Your task to perform on an android device: Search for sushi restaurants on Maps Image 0: 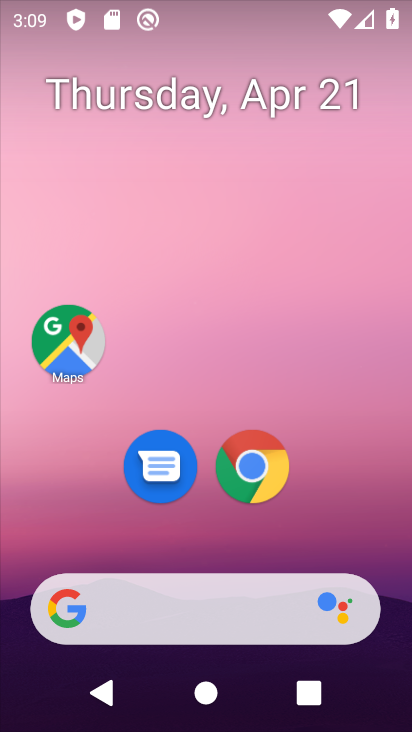
Step 0: click (67, 353)
Your task to perform on an android device: Search for sushi restaurants on Maps Image 1: 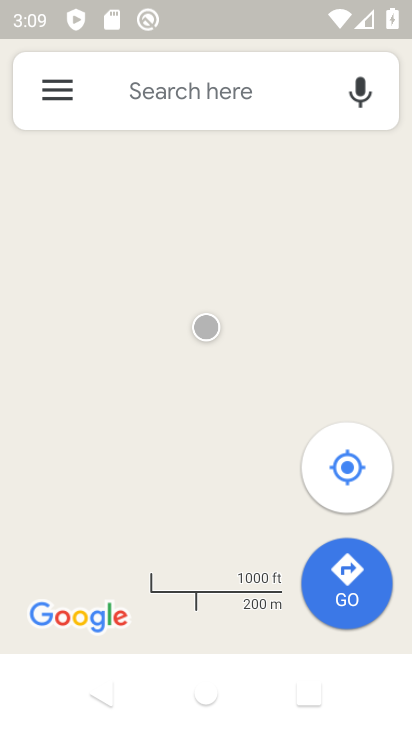
Step 1: click (188, 85)
Your task to perform on an android device: Search for sushi restaurants on Maps Image 2: 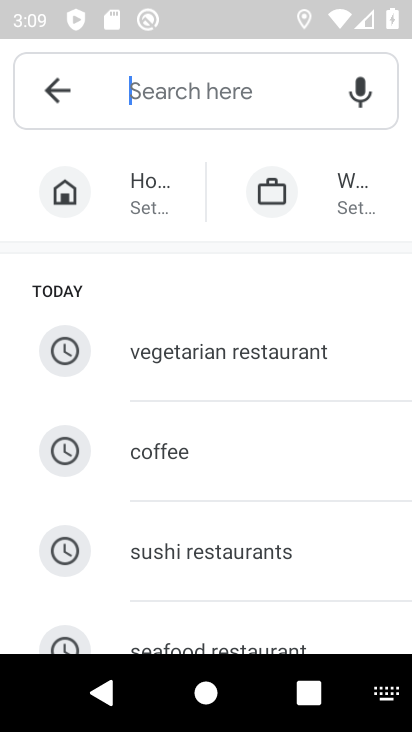
Step 2: type " sushi restaurants"
Your task to perform on an android device: Search for sushi restaurants on Maps Image 3: 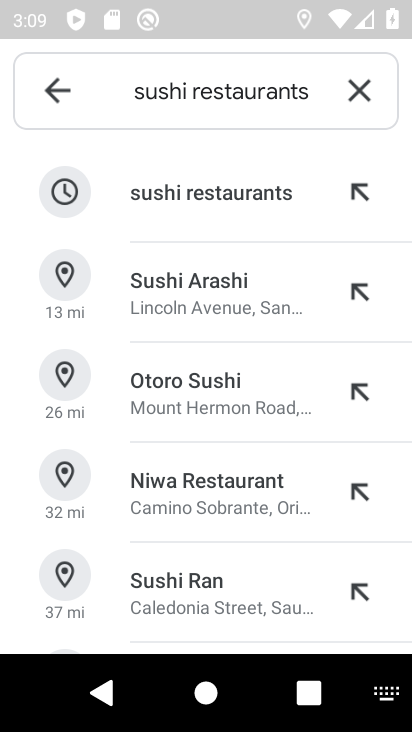
Step 3: click (212, 198)
Your task to perform on an android device: Search for sushi restaurants on Maps Image 4: 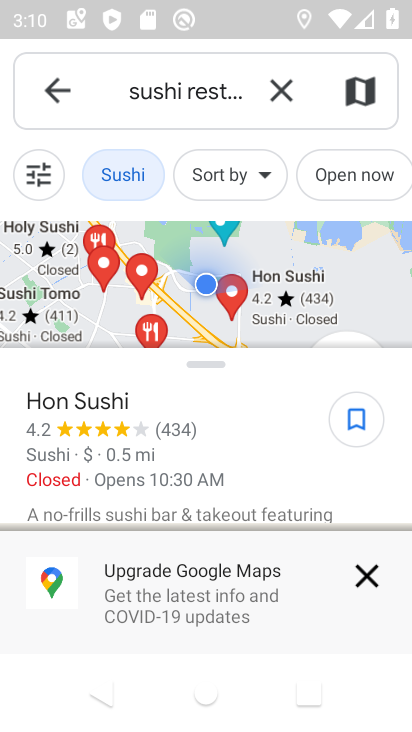
Step 4: task complete